Your task to perform on an android device: Open Wikipedia Image 0: 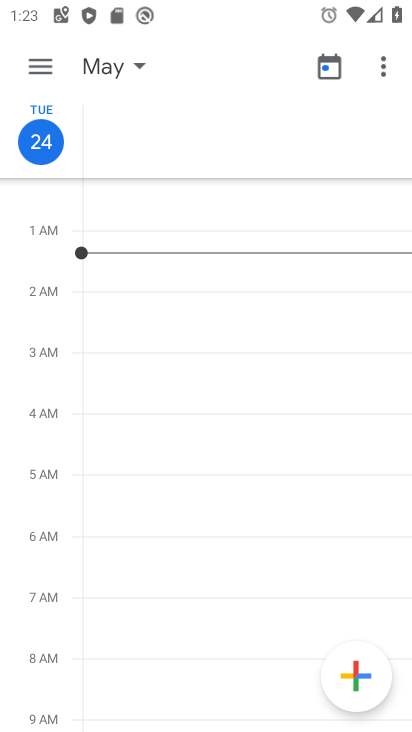
Step 0: press home button
Your task to perform on an android device: Open Wikipedia Image 1: 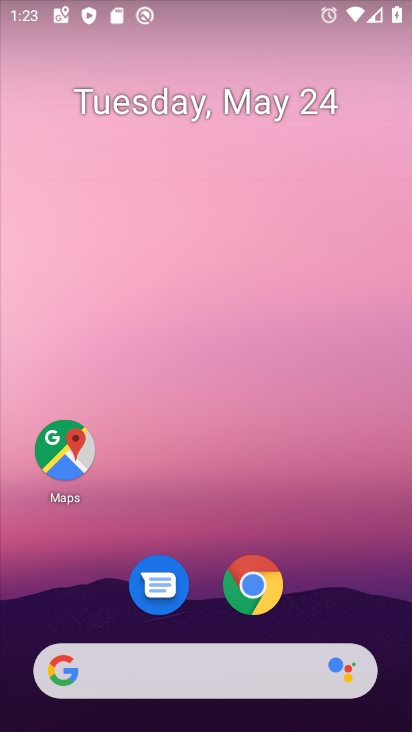
Step 1: click (216, 512)
Your task to perform on an android device: Open Wikipedia Image 2: 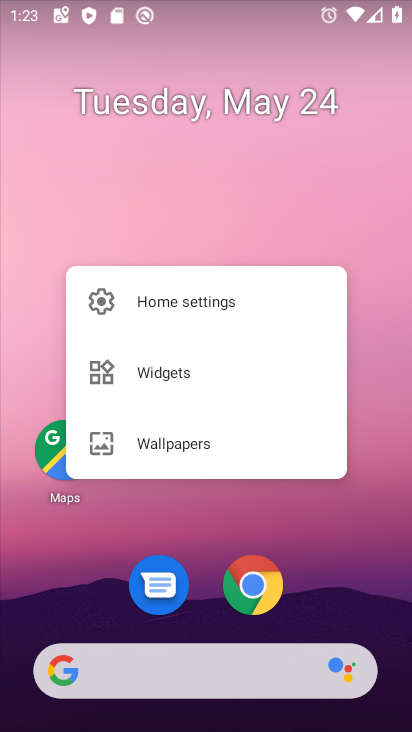
Step 2: click (256, 580)
Your task to perform on an android device: Open Wikipedia Image 3: 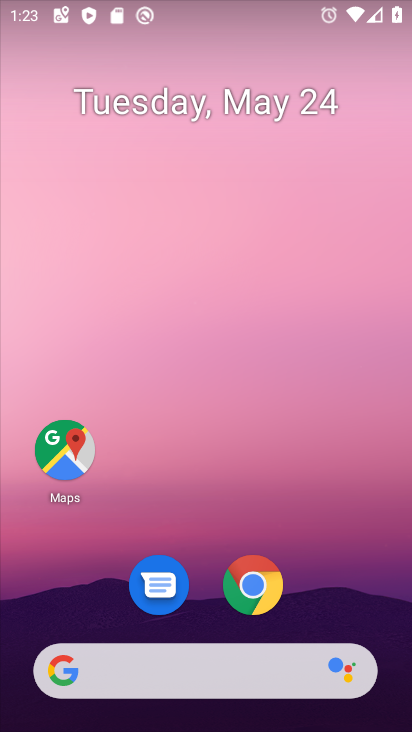
Step 3: click (256, 580)
Your task to perform on an android device: Open Wikipedia Image 4: 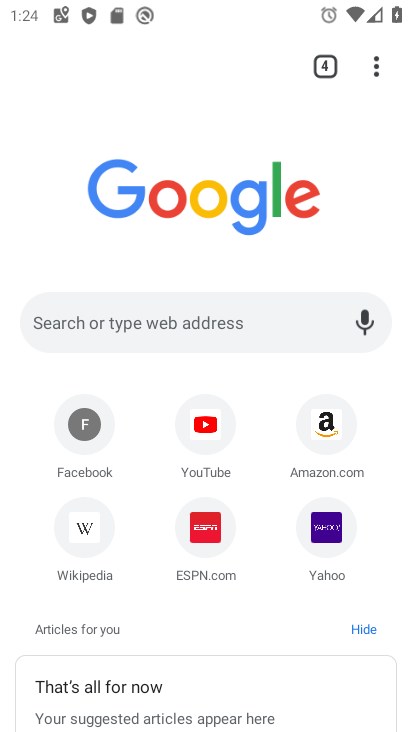
Step 4: click (82, 528)
Your task to perform on an android device: Open Wikipedia Image 5: 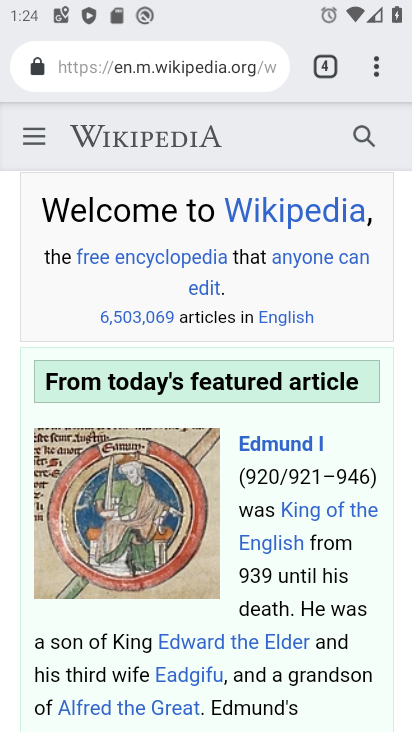
Step 5: task complete